Your task to perform on an android device: open chrome privacy settings Image 0: 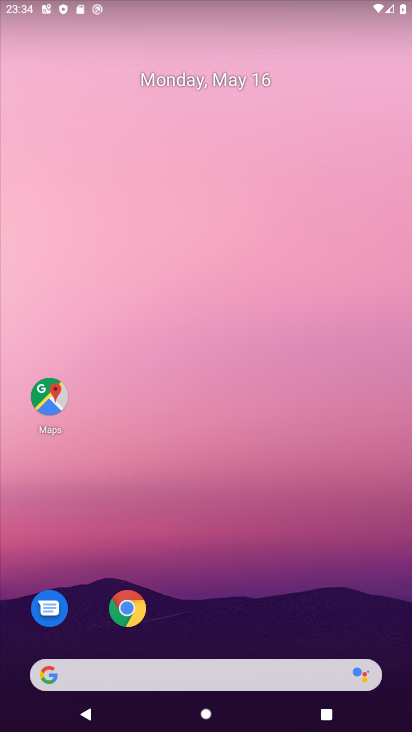
Step 0: click (135, 606)
Your task to perform on an android device: open chrome privacy settings Image 1: 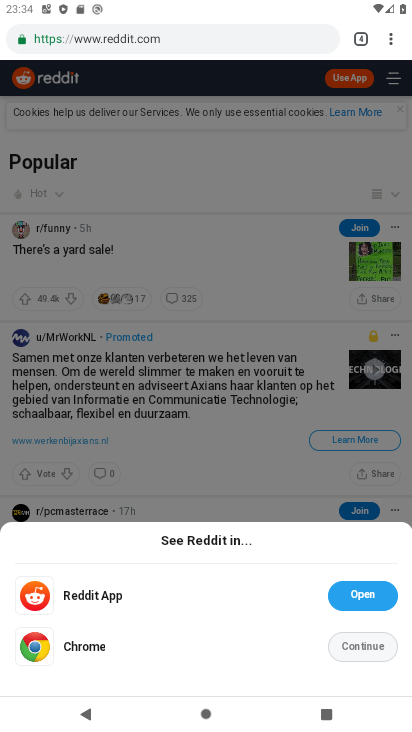
Step 1: drag from (390, 38) to (259, 483)
Your task to perform on an android device: open chrome privacy settings Image 2: 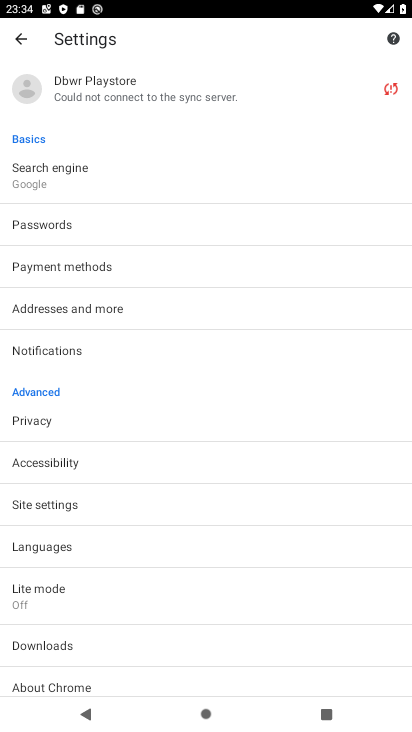
Step 2: click (23, 416)
Your task to perform on an android device: open chrome privacy settings Image 3: 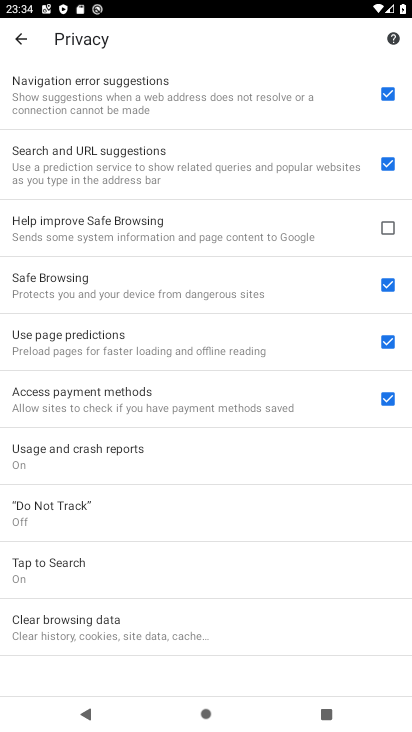
Step 3: task complete